Your task to perform on an android device: Open Google Maps and go to "Timeline" Image 0: 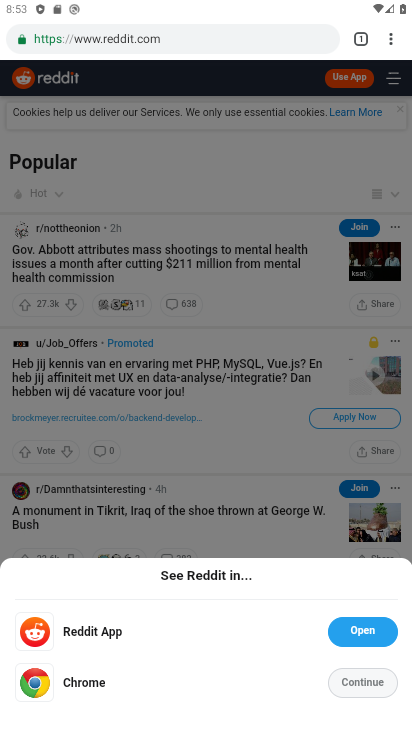
Step 0: drag from (236, 642) to (287, 210)
Your task to perform on an android device: Open Google Maps and go to "Timeline" Image 1: 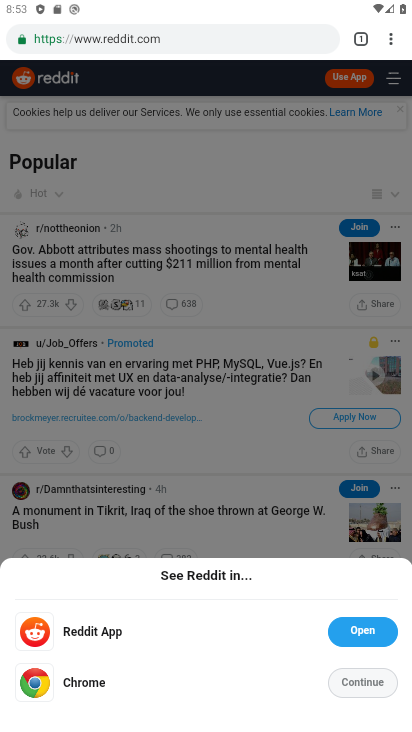
Step 1: press back button
Your task to perform on an android device: Open Google Maps and go to "Timeline" Image 2: 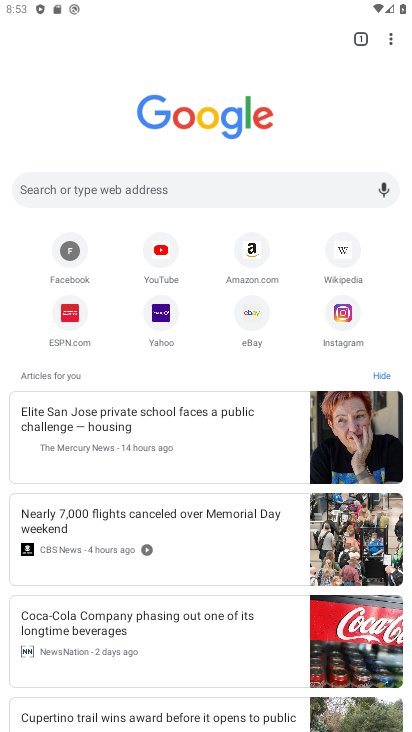
Step 2: press back button
Your task to perform on an android device: Open Google Maps and go to "Timeline" Image 3: 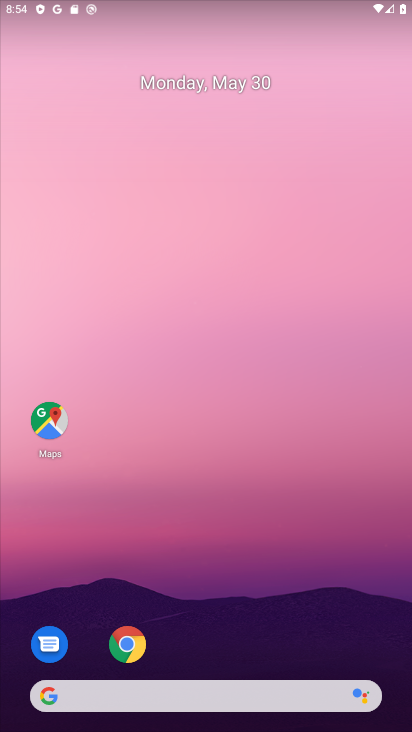
Step 3: click (43, 417)
Your task to perform on an android device: Open Google Maps and go to "Timeline" Image 4: 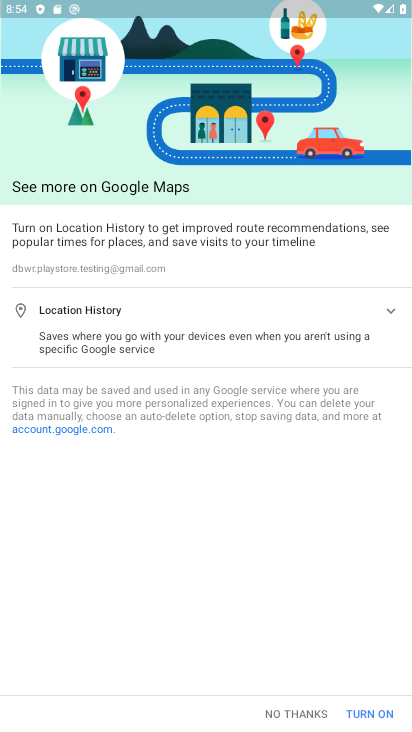
Step 4: click (293, 710)
Your task to perform on an android device: Open Google Maps and go to "Timeline" Image 5: 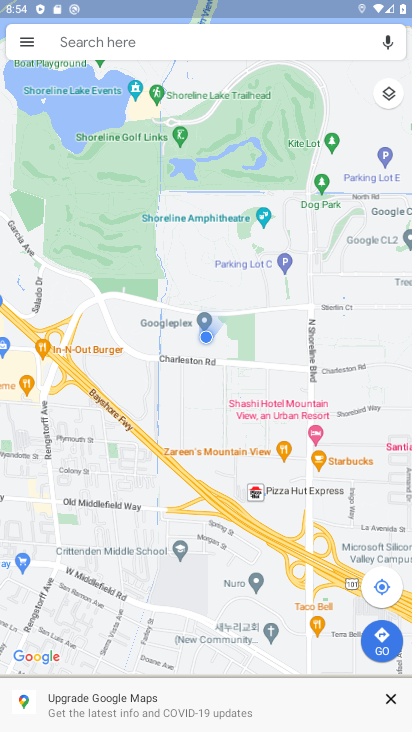
Step 5: click (21, 44)
Your task to perform on an android device: Open Google Maps and go to "Timeline" Image 6: 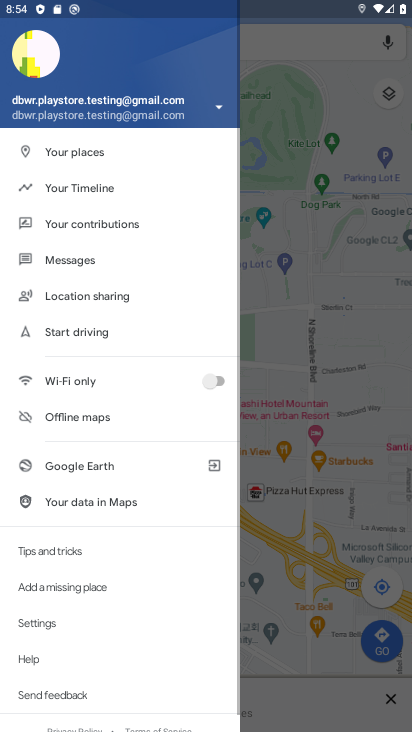
Step 6: click (92, 183)
Your task to perform on an android device: Open Google Maps and go to "Timeline" Image 7: 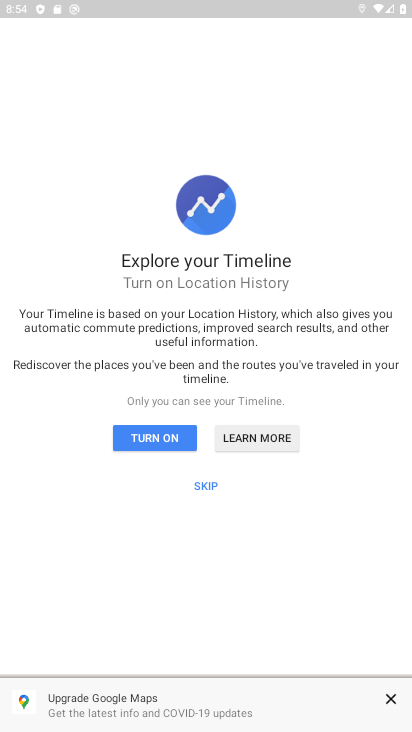
Step 7: click (208, 487)
Your task to perform on an android device: Open Google Maps and go to "Timeline" Image 8: 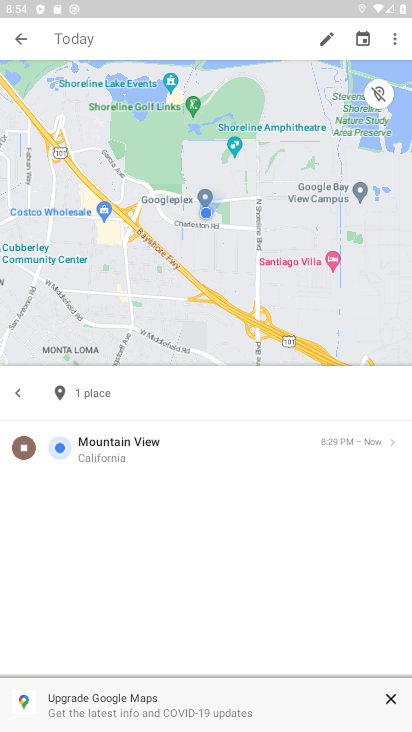
Step 8: task complete